Your task to perform on an android device: Open settings on Google Maps Image 0: 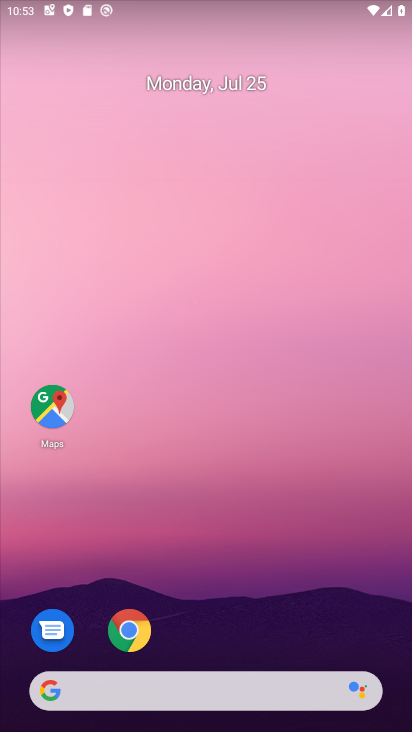
Step 0: press home button
Your task to perform on an android device: Open settings on Google Maps Image 1: 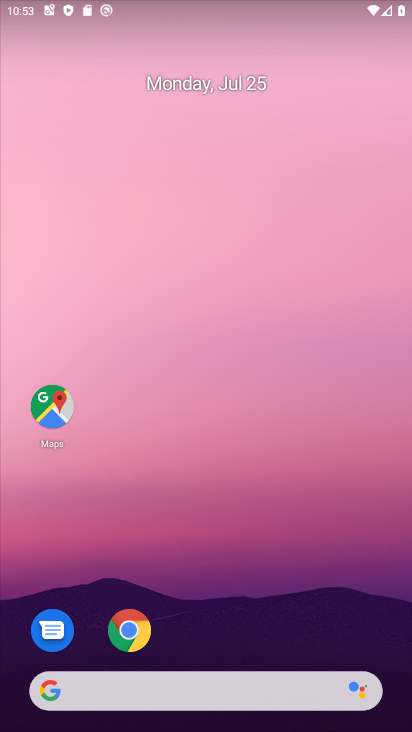
Step 1: drag from (370, 633) to (356, 267)
Your task to perform on an android device: Open settings on Google Maps Image 2: 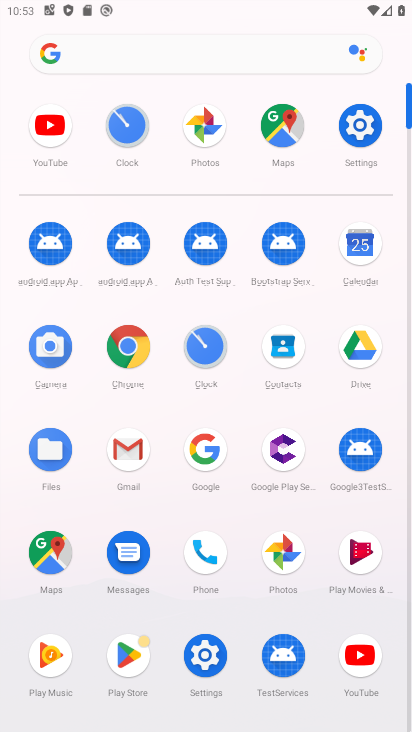
Step 2: click (283, 129)
Your task to perform on an android device: Open settings on Google Maps Image 3: 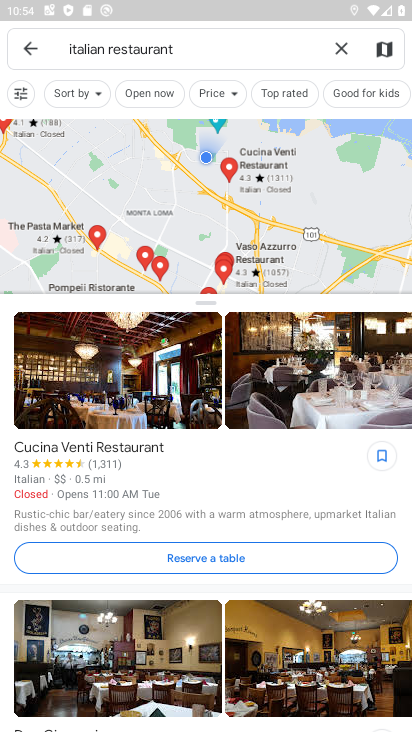
Step 3: press back button
Your task to perform on an android device: Open settings on Google Maps Image 4: 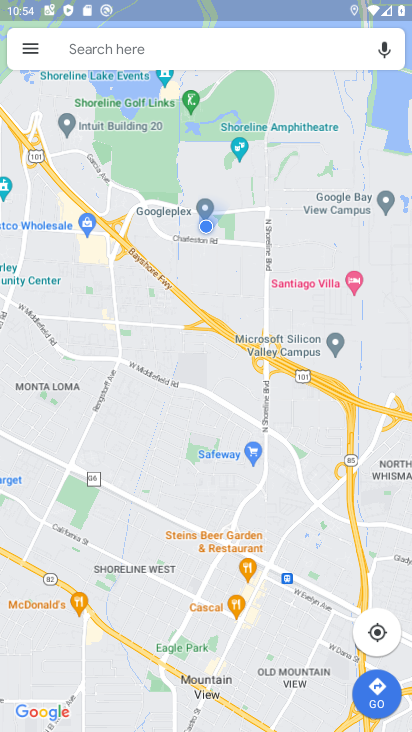
Step 4: click (30, 48)
Your task to perform on an android device: Open settings on Google Maps Image 5: 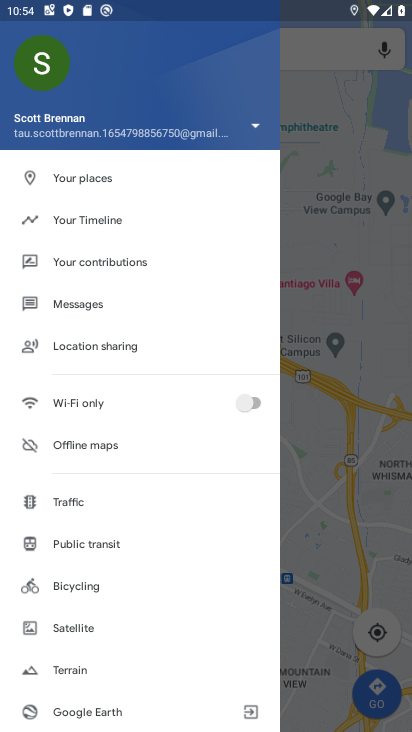
Step 5: drag from (193, 606) to (194, 542)
Your task to perform on an android device: Open settings on Google Maps Image 6: 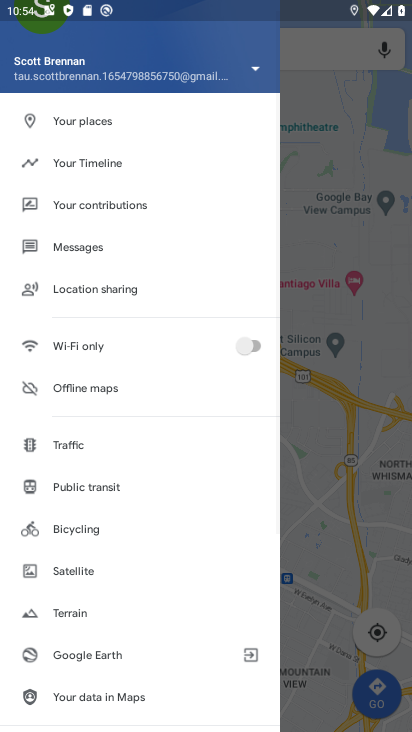
Step 6: drag from (184, 639) to (189, 512)
Your task to perform on an android device: Open settings on Google Maps Image 7: 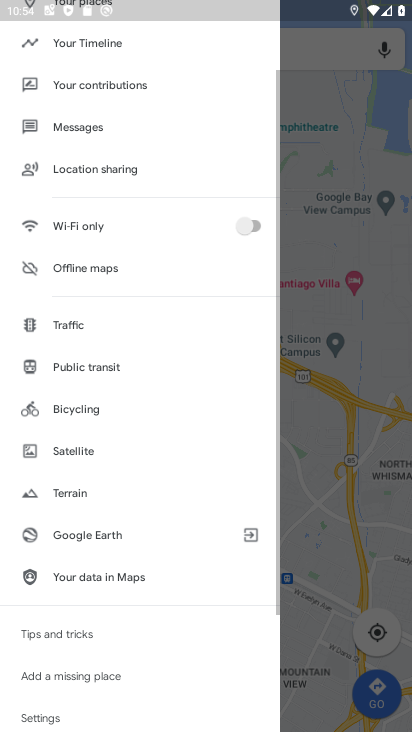
Step 7: drag from (179, 646) to (184, 540)
Your task to perform on an android device: Open settings on Google Maps Image 8: 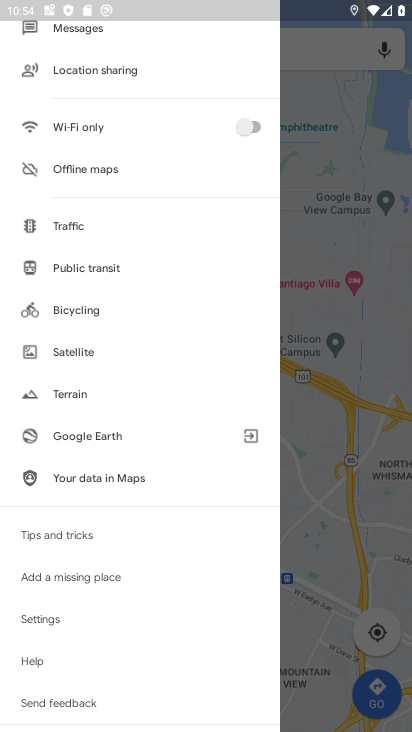
Step 8: click (146, 618)
Your task to perform on an android device: Open settings on Google Maps Image 9: 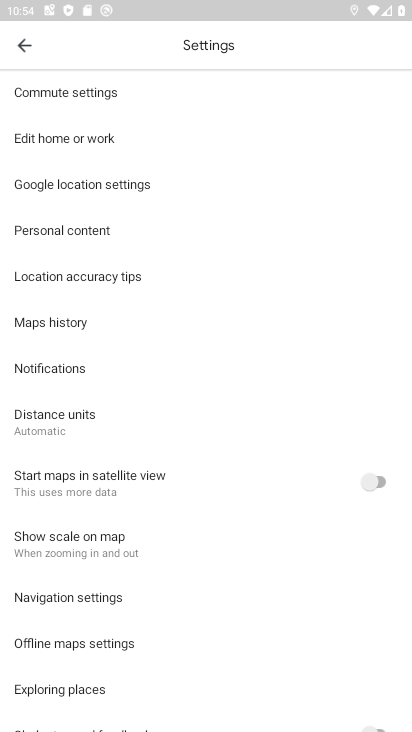
Step 9: task complete